Your task to perform on an android device: delete a single message in the gmail app Image 0: 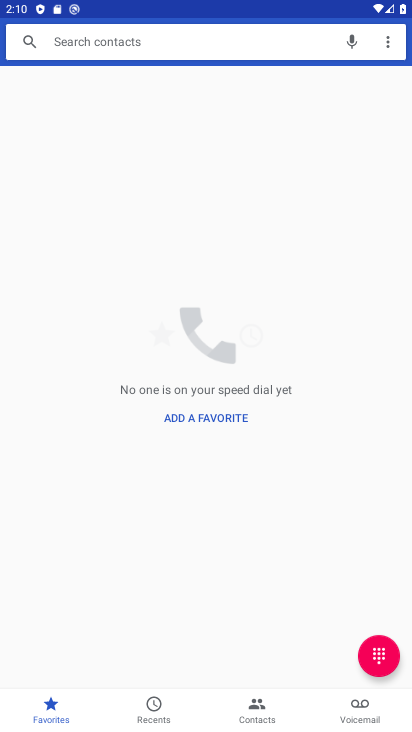
Step 0: press back button
Your task to perform on an android device: delete a single message in the gmail app Image 1: 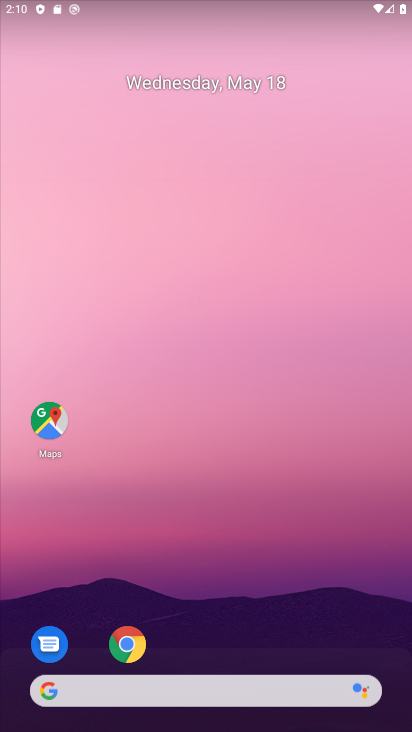
Step 1: drag from (279, 631) to (189, 61)
Your task to perform on an android device: delete a single message in the gmail app Image 2: 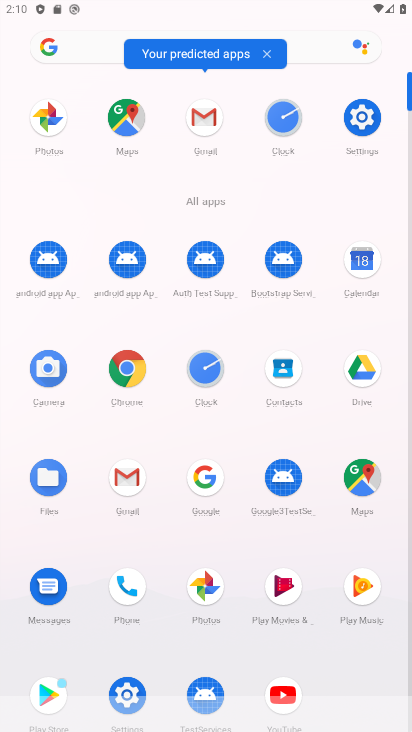
Step 2: click (204, 116)
Your task to perform on an android device: delete a single message in the gmail app Image 3: 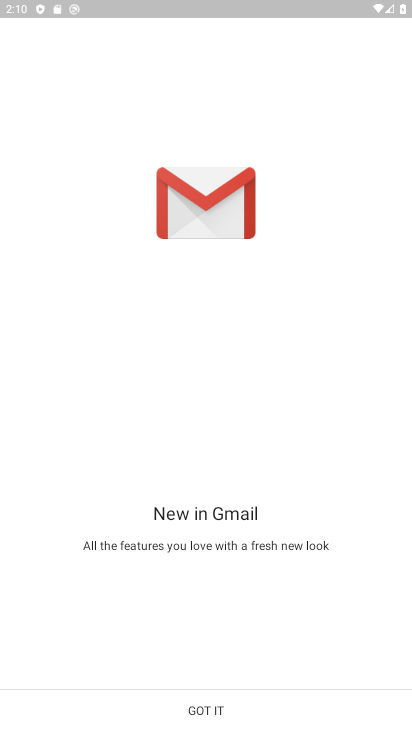
Step 3: click (214, 707)
Your task to perform on an android device: delete a single message in the gmail app Image 4: 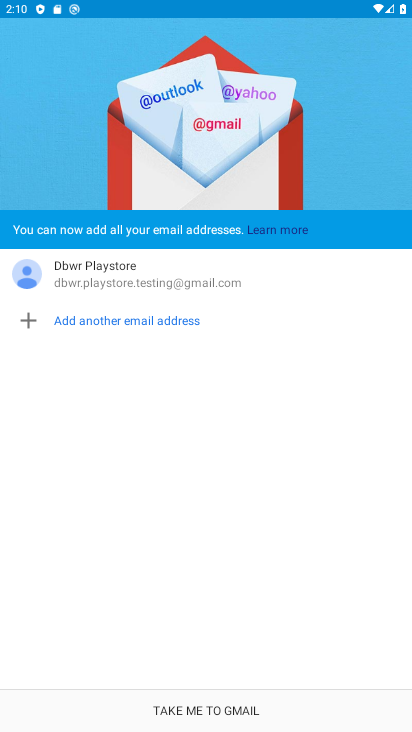
Step 4: click (214, 707)
Your task to perform on an android device: delete a single message in the gmail app Image 5: 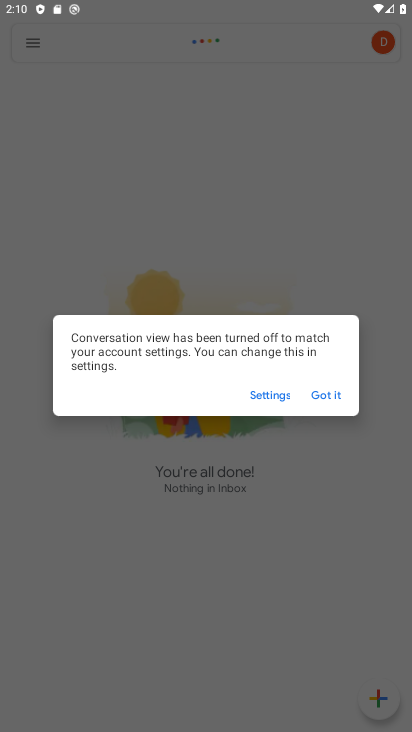
Step 5: click (335, 393)
Your task to perform on an android device: delete a single message in the gmail app Image 6: 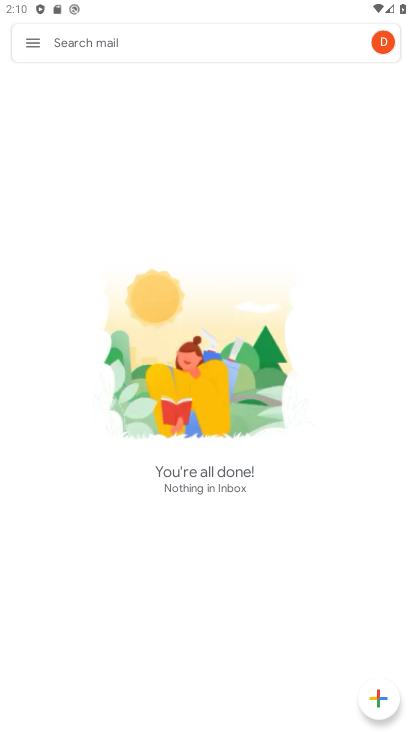
Step 6: click (35, 41)
Your task to perform on an android device: delete a single message in the gmail app Image 7: 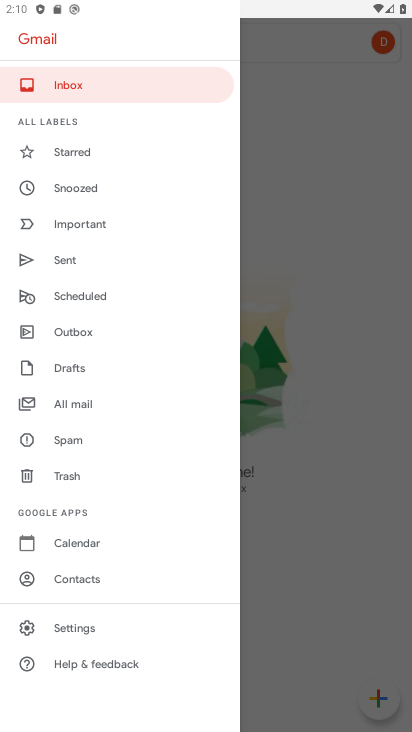
Step 7: click (75, 397)
Your task to perform on an android device: delete a single message in the gmail app Image 8: 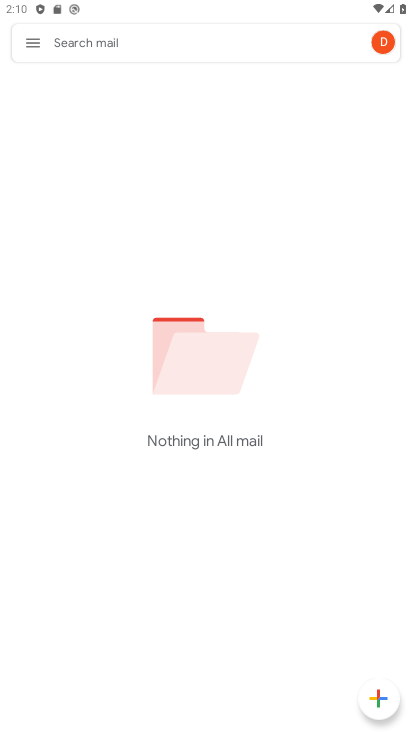
Step 8: click (28, 37)
Your task to perform on an android device: delete a single message in the gmail app Image 9: 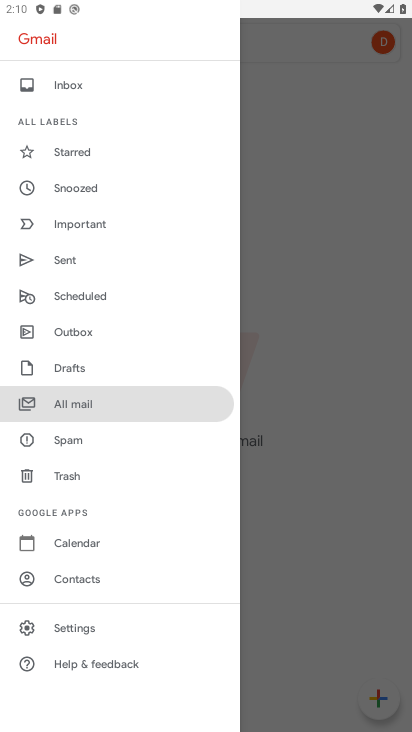
Step 9: click (86, 153)
Your task to perform on an android device: delete a single message in the gmail app Image 10: 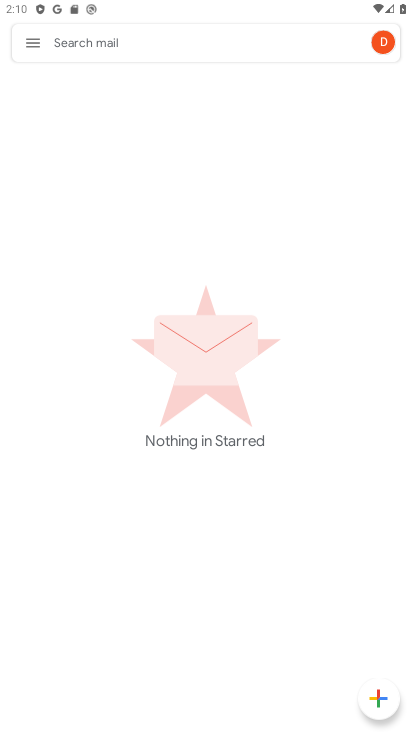
Step 10: task complete